Your task to perform on an android device: Search for bose soundsport free on bestbuy, select the first entry, add it to the cart, then select checkout. Image 0: 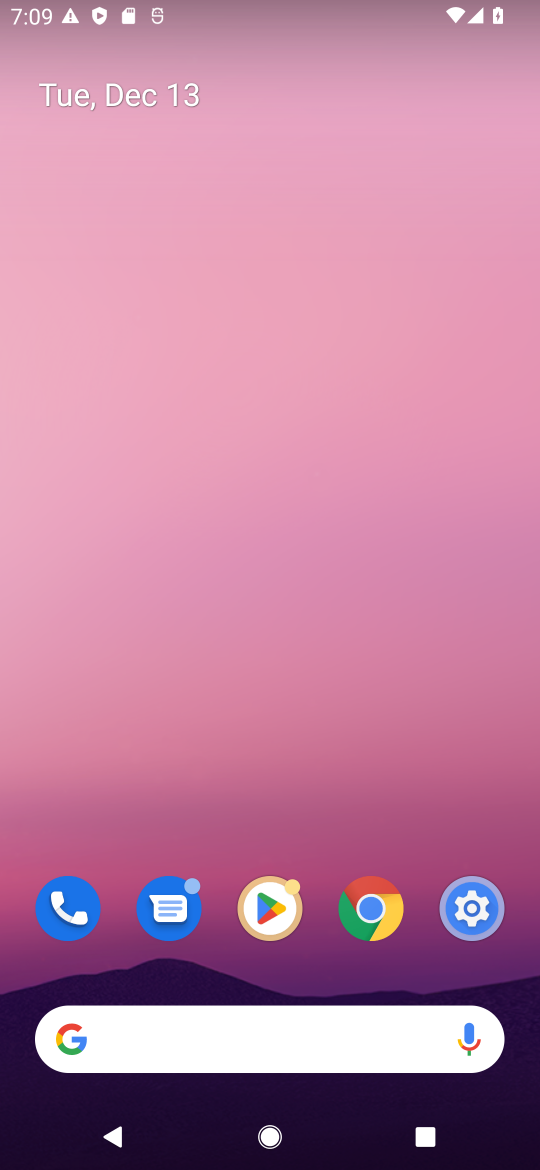
Step 0: press home button
Your task to perform on an android device: Search for bose soundsport free on bestbuy, select the first entry, add it to the cart, then select checkout. Image 1: 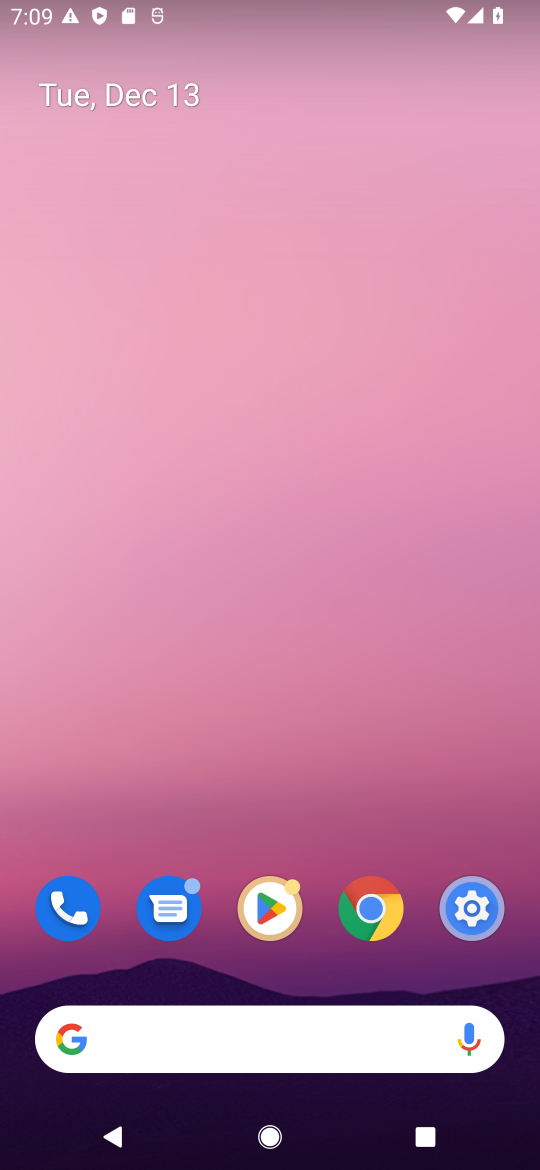
Step 1: click (135, 1050)
Your task to perform on an android device: Search for bose soundsport free on bestbuy, select the first entry, add it to the cart, then select checkout. Image 2: 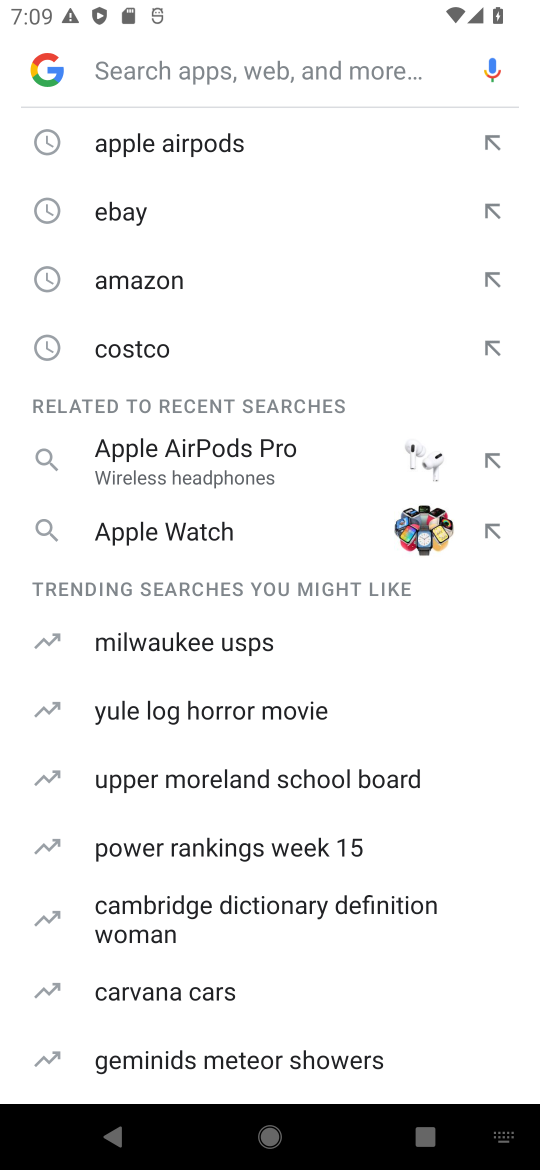
Step 2: press enter
Your task to perform on an android device: Search for bose soundsport free on bestbuy, select the first entry, add it to the cart, then select checkout. Image 3: 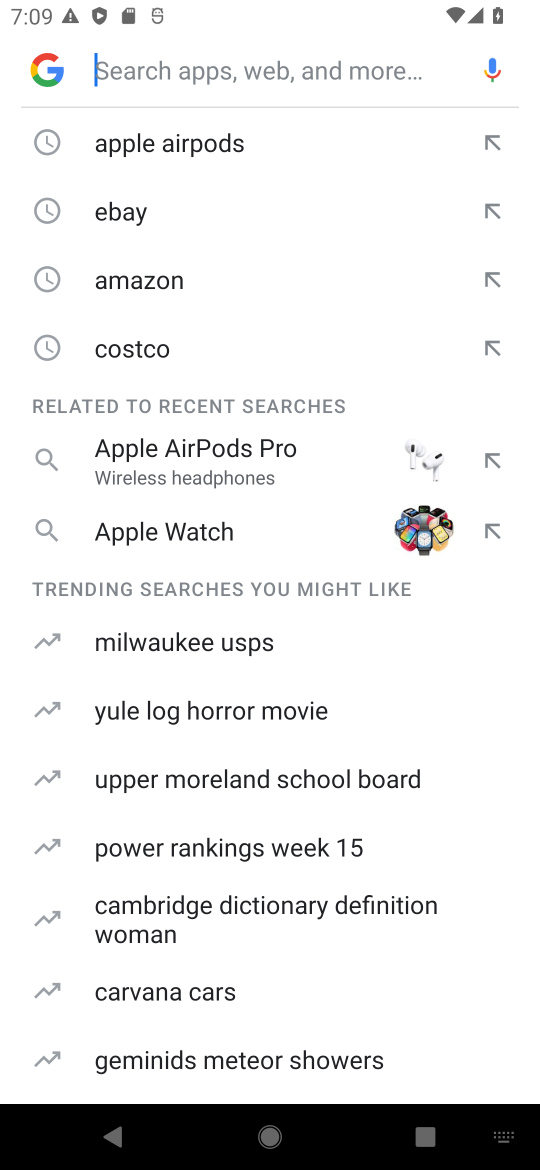
Step 3: type "bestbuy"
Your task to perform on an android device: Search for bose soundsport free on bestbuy, select the first entry, add it to the cart, then select checkout. Image 4: 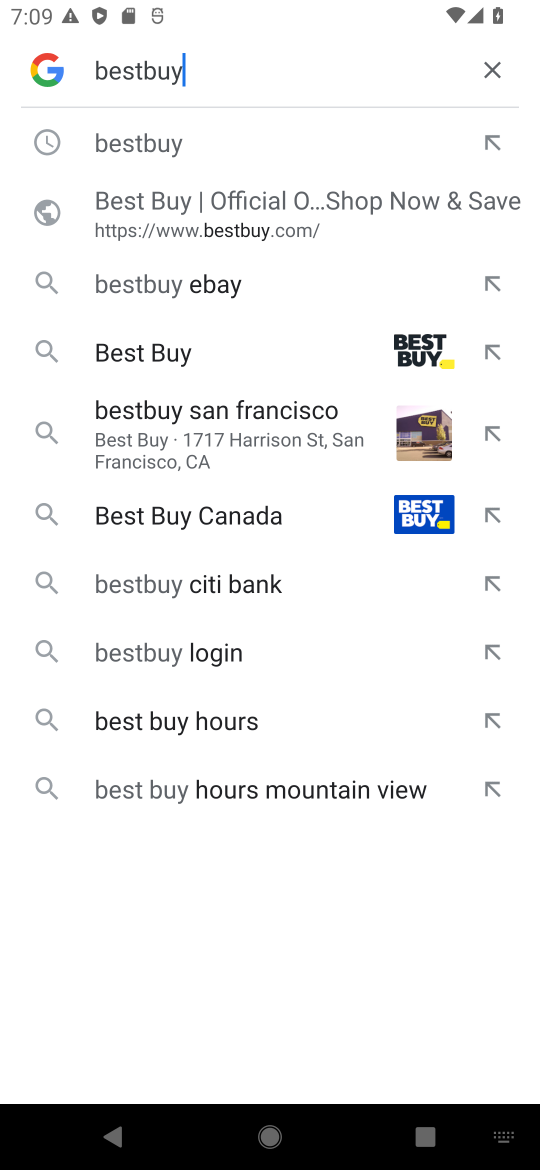
Step 4: press enter
Your task to perform on an android device: Search for bose soundsport free on bestbuy, select the first entry, add it to the cart, then select checkout. Image 5: 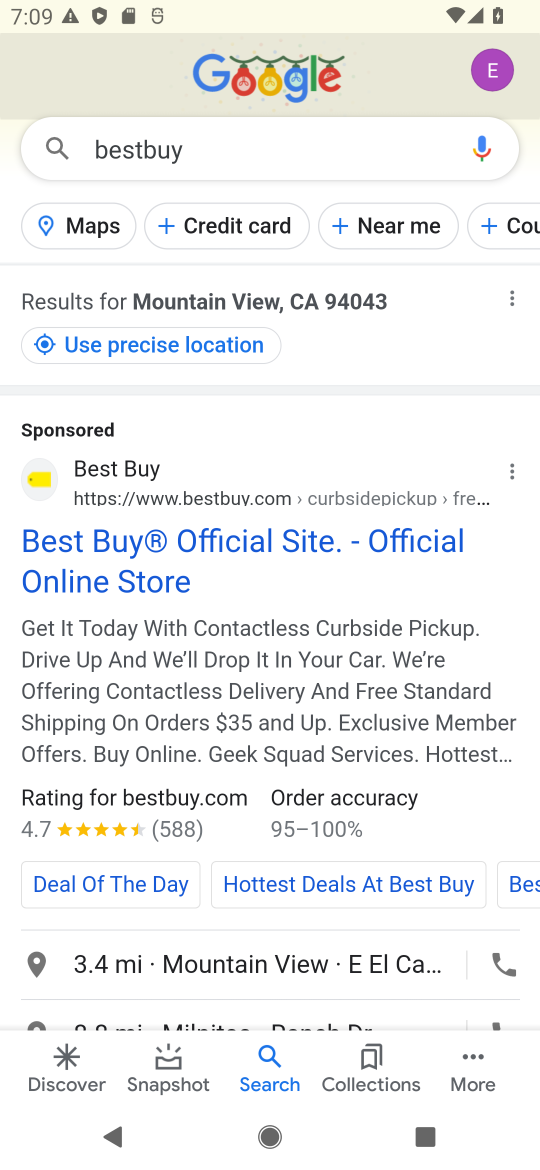
Step 5: click (82, 536)
Your task to perform on an android device: Search for bose soundsport free on bestbuy, select the first entry, add it to the cart, then select checkout. Image 6: 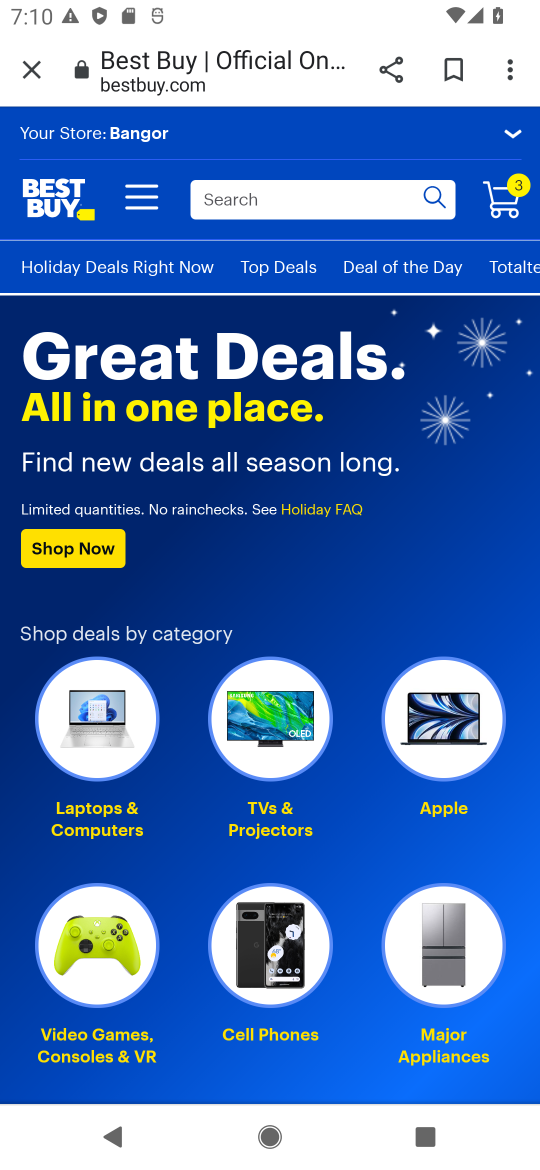
Step 6: click (239, 192)
Your task to perform on an android device: Search for bose soundsport free on bestbuy, select the first entry, add it to the cart, then select checkout. Image 7: 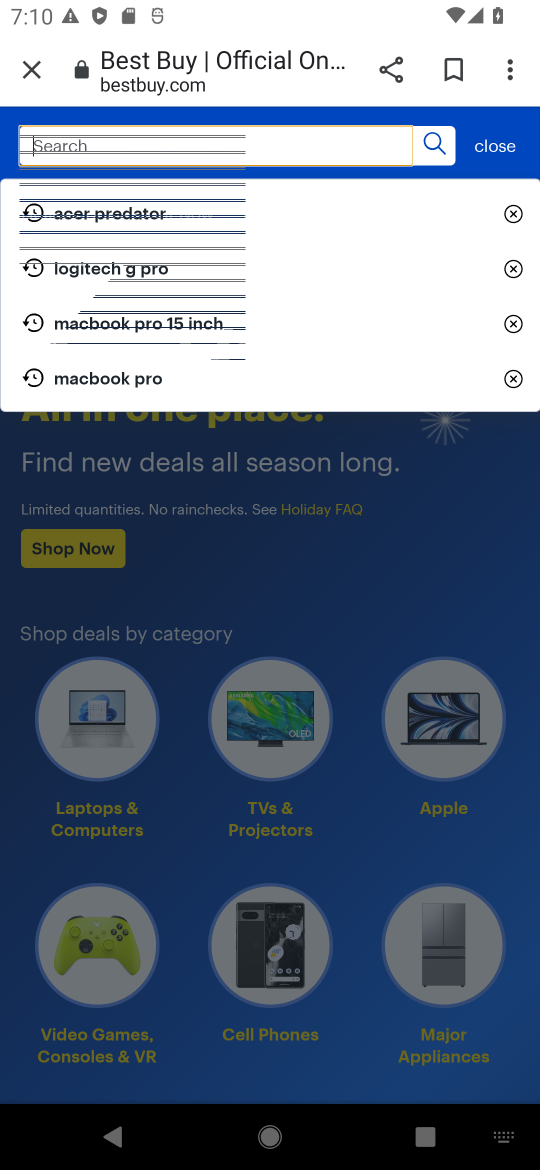
Step 7: type "bose soundsport free"
Your task to perform on an android device: Search for bose soundsport free on bestbuy, select the first entry, add it to the cart, then select checkout. Image 8: 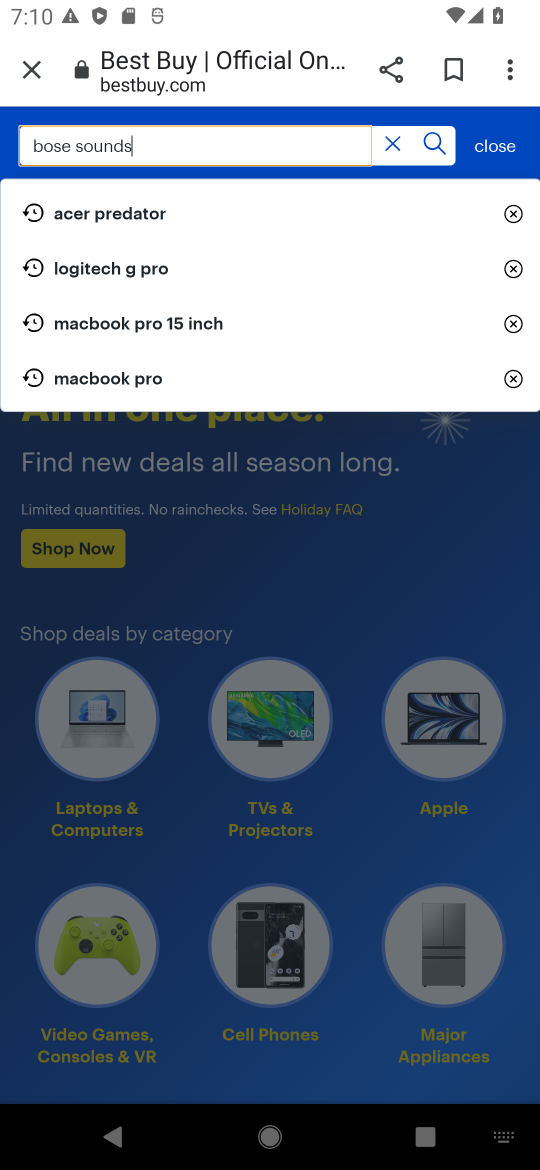
Step 8: press enter
Your task to perform on an android device: Search for bose soundsport free on bestbuy, select the first entry, add it to the cart, then select checkout. Image 9: 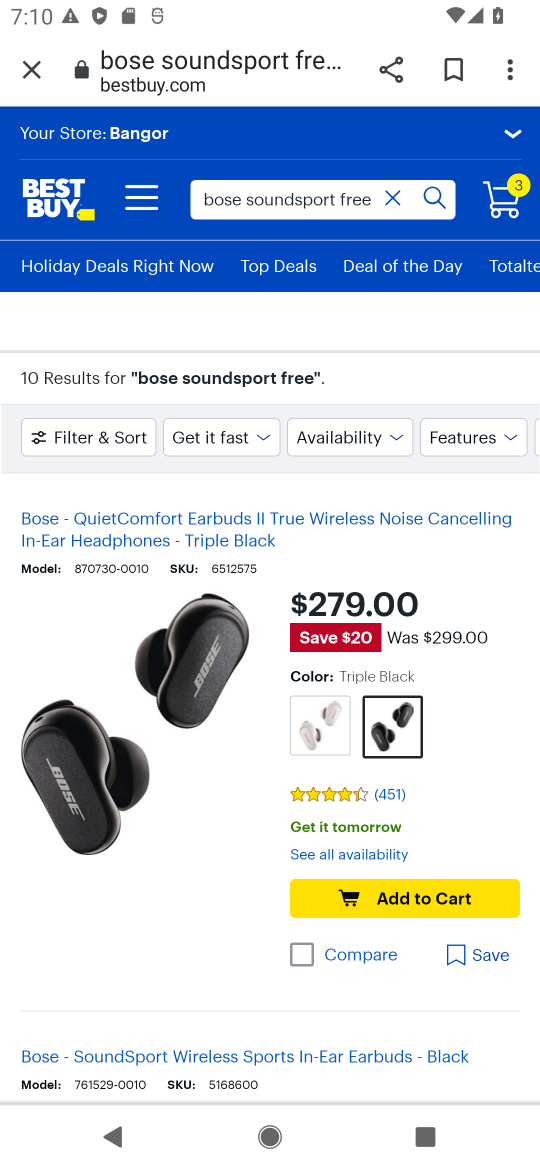
Step 9: click (401, 895)
Your task to perform on an android device: Search for bose soundsport free on bestbuy, select the first entry, add it to the cart, then select checkout. Image 10: 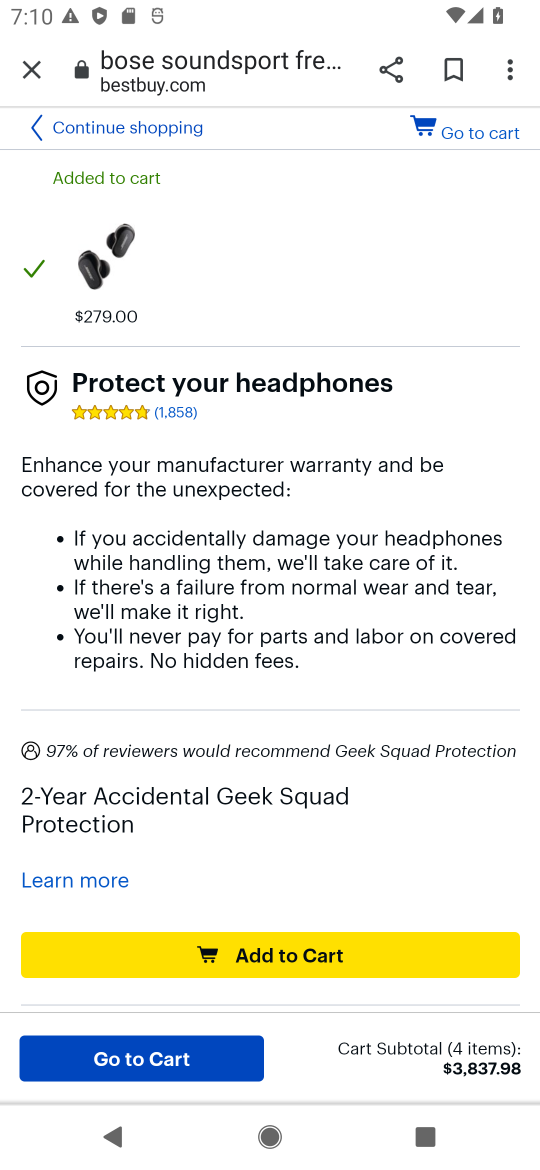
Step 10: click (114, 1064)
Your task to perform on an android device: Search for bose soundsport free on bestbuy, select the first entry, add it to the cart, then select checkout. Image 11: 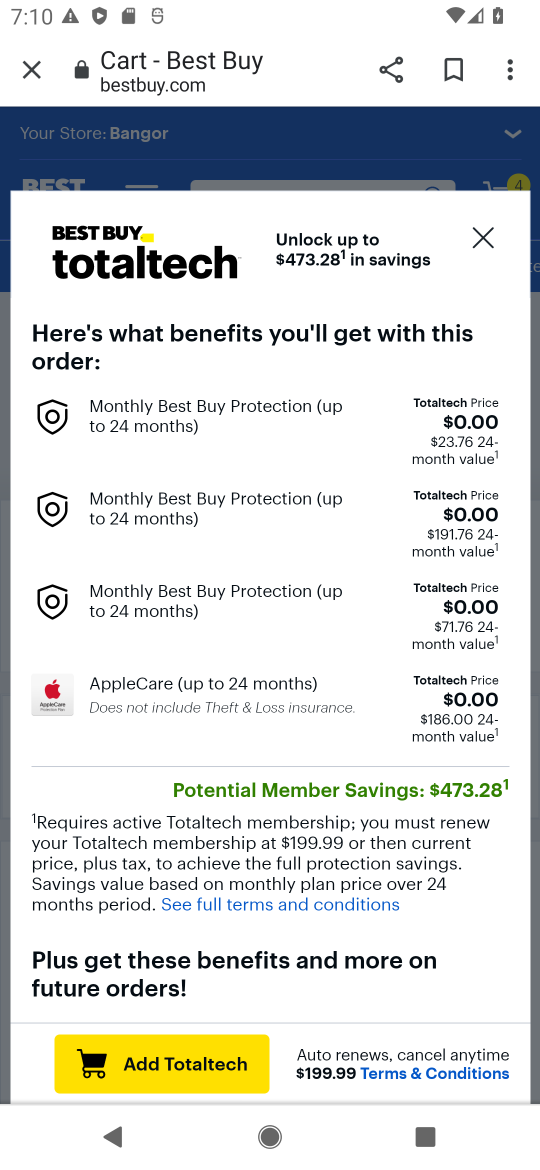
Step 11: click (484, 239)
Your task to perform on an android device: Search for bose soundsport free on bestbuy, select the first entry, add it to the cart, then select checkout. Image 12: 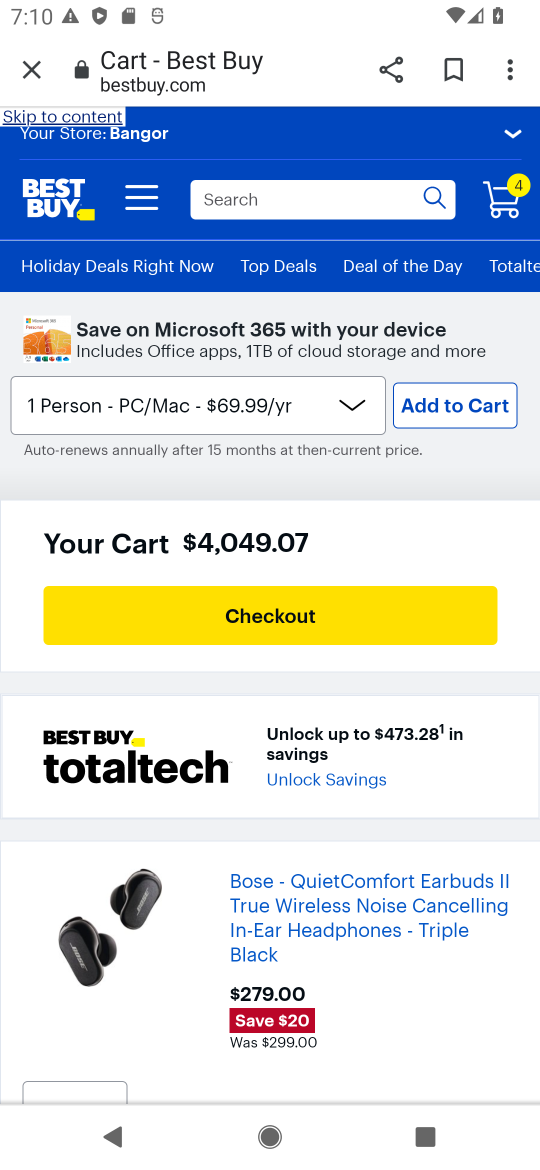
Step 12: click (286, 615)
Your task to perform on an android device: Search for bose soundsport free on bestbuy, select the first entry, add it to the cart, then select checkout. Image 13: 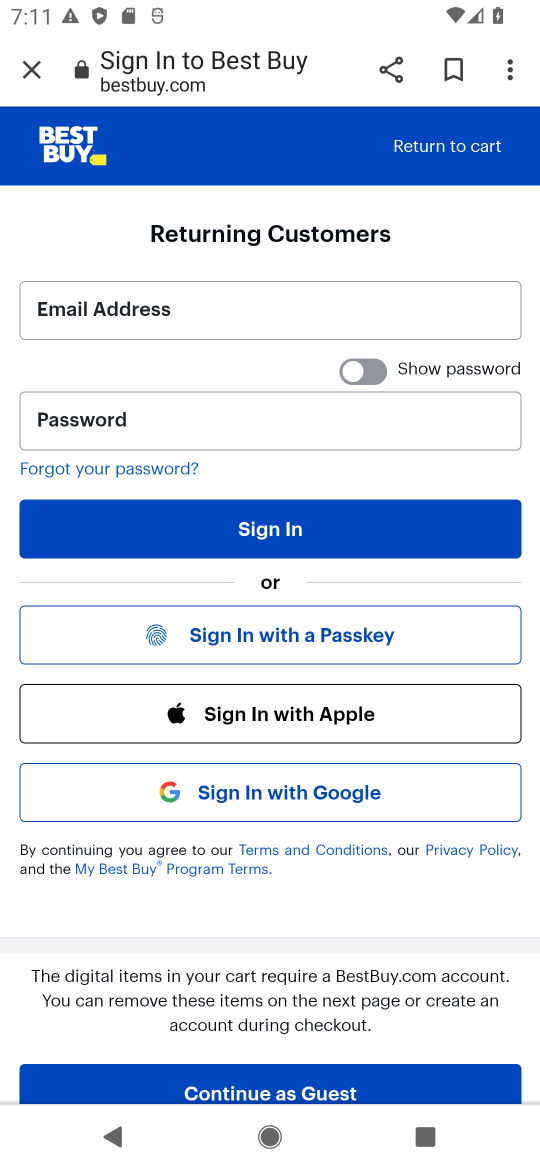
Step 13: task complete